Your task to perform on an android device: clear history in the chrome app Image 0: 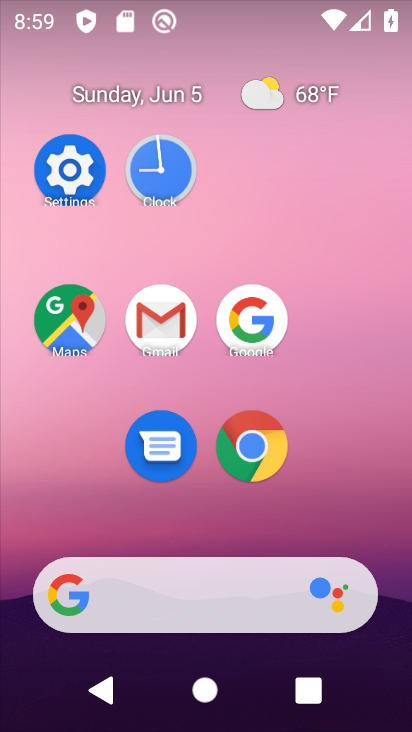
Step 0: click (270, 422)
Your task to perform on an android device: clear history in the chrome app Image 1: 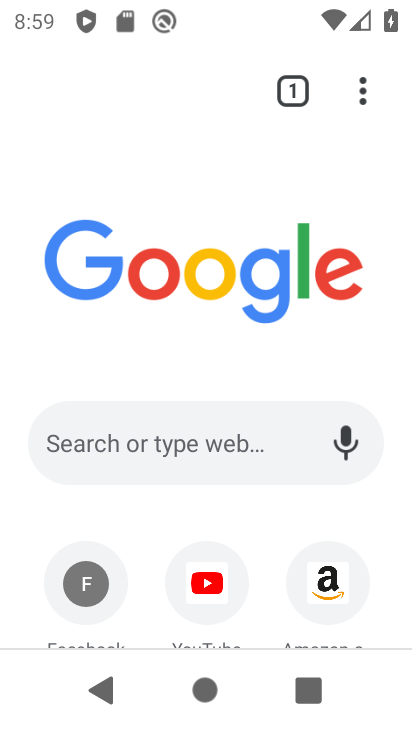
Step 1: click (354, 83)
Your task to perform on an android device: clear history in the chrome app Image 2: 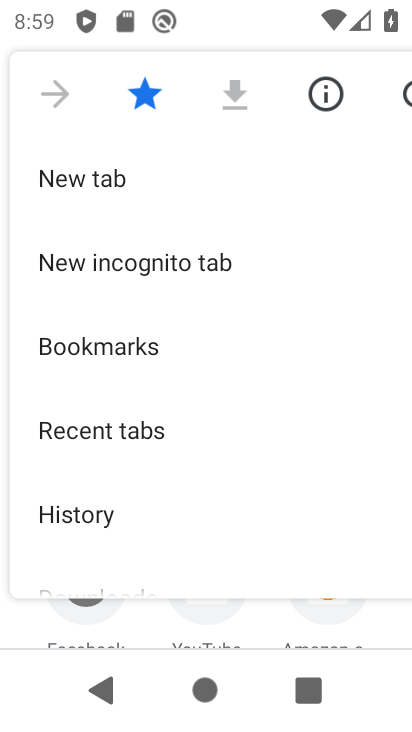
Step 2: click (60, 506)
Your task to perform on an android device: clear history in the chrome app Image 3: 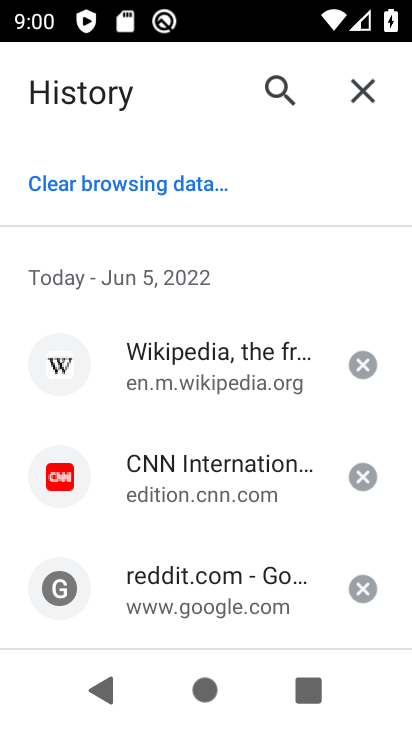
Step 3: click (166, 180)
Your task to perform on an android device: clear history in the chrome app Image 4: 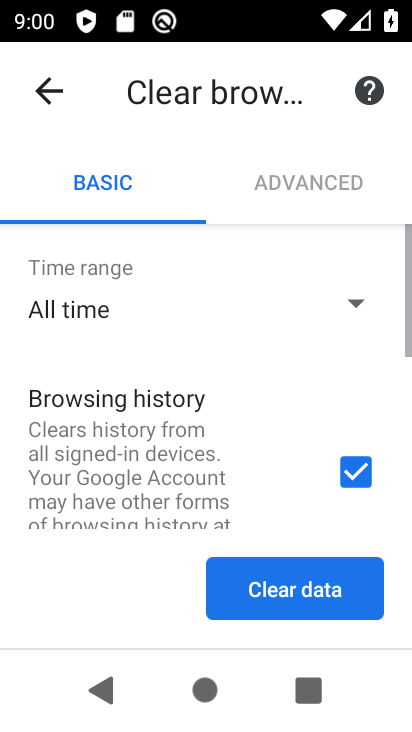
Step 4: click (310, 621)
Your task to perform on an android device: clear history in the chrome app Image 5: 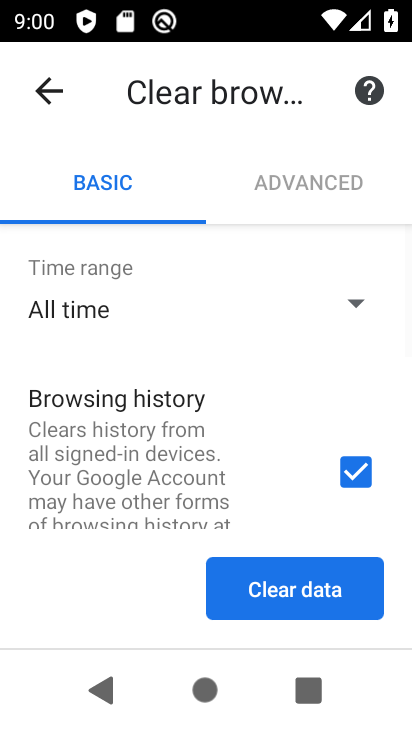
Step 5: click (326, 591)
Your task to perform on an android device: clear history in the chrome app Image 6: 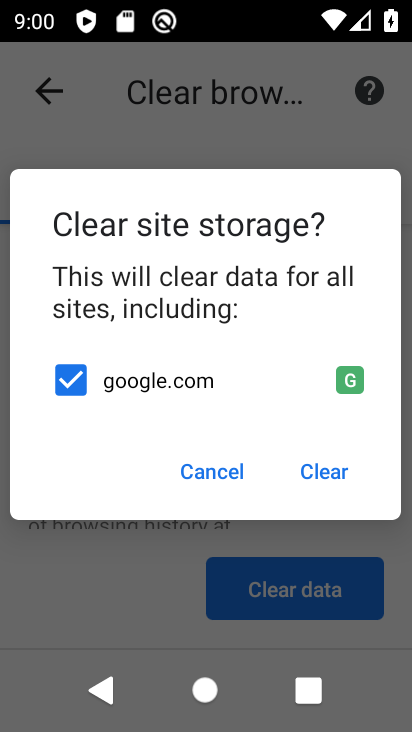
Step 6: click (353, 473)
Your task to perform on an android device: clear history in the chrome app Image 7: 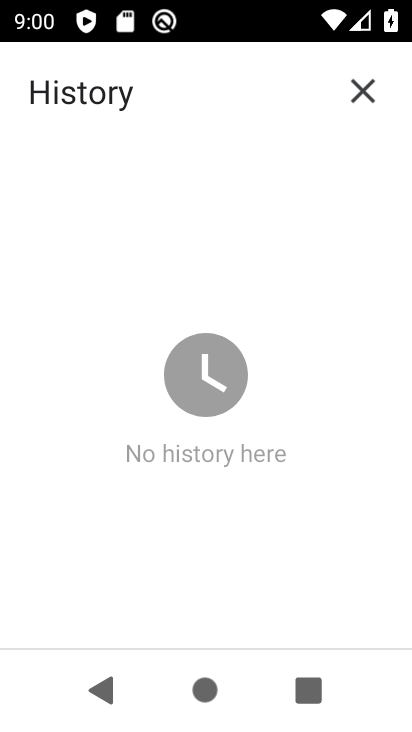
Step 7: task complete